Your task to perform on an android device: search for starred emails in the gmail app Image 0: 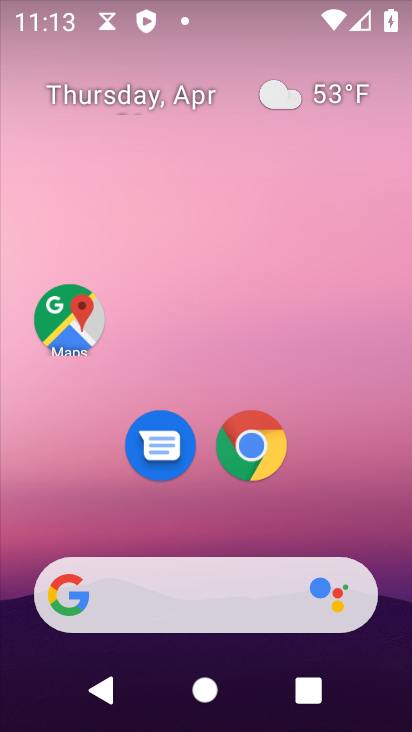
Step 0: drag from (163, 595) to (256, 145)
Your task to perform on an android device: search for starred emails in the gmail app Image 1: 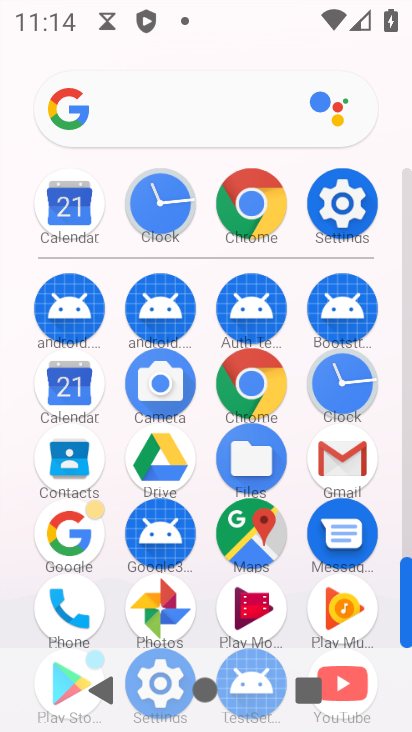
Step 1: click (349, 458)
Your task to perform on an android device: search for starred emails in the gmail app Image 2: 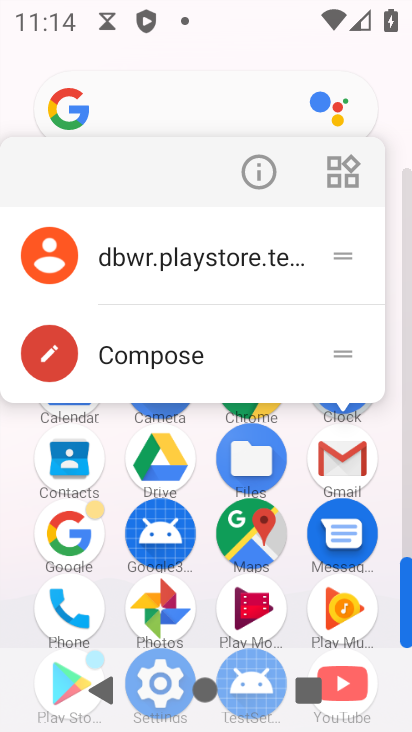
Step 2: click (338, 457)
Your task to perform on an android device: search for starred emails in the gmail app Image 3: 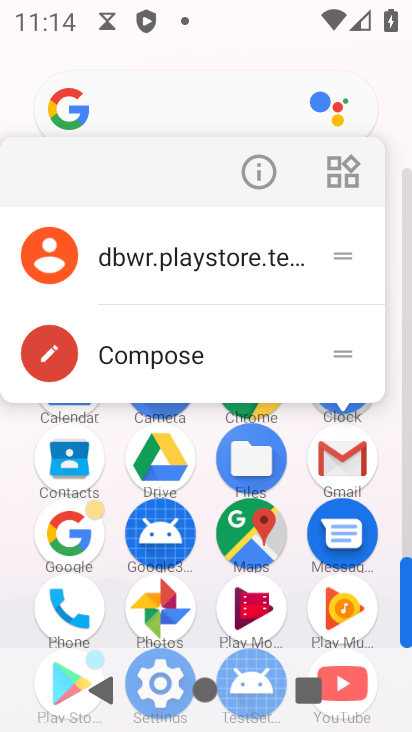
Step 3: click (334, 467)
Your task to perform on an android device: search for starred emails in the gmail app Image 4: 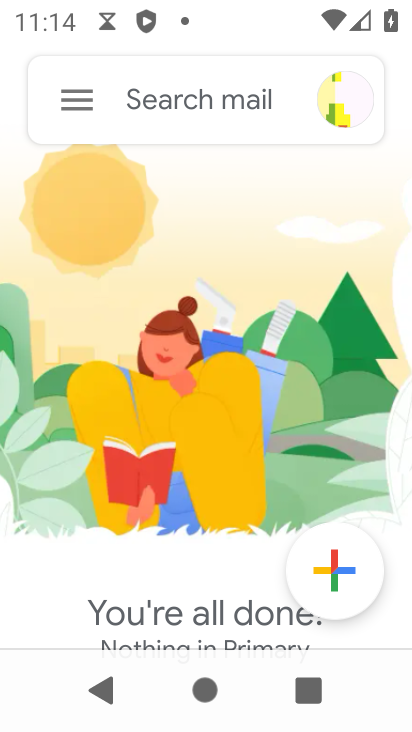
Step 4: click (81, 114)
Your task to perform on an android device: search for starred emails in the gmail app Image 5: 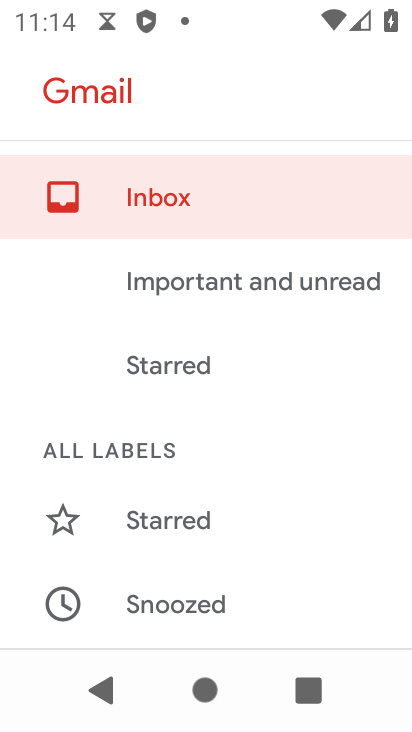
Step 5: click (161, 523)
Your task to perform on an android device: search for starred emails in the gmail app Image 6: 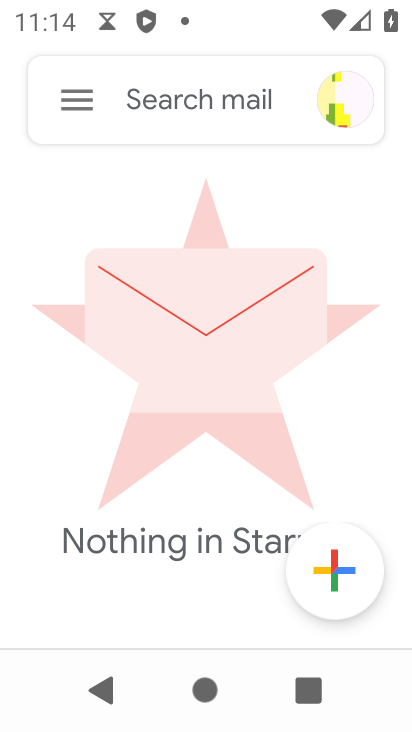
Step 6: task complete